Your task to perform on an android device: stop showing notifications on the lock screen Image 0: 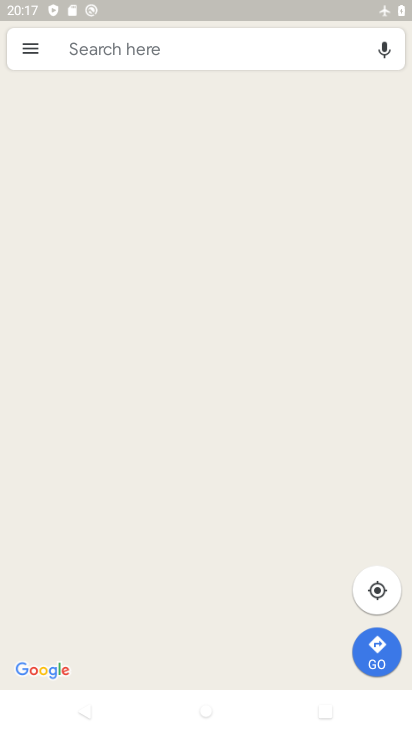
Step 0: press home button
Your task to perform on an android device: stop showing notifications on the lock screen Image 1: 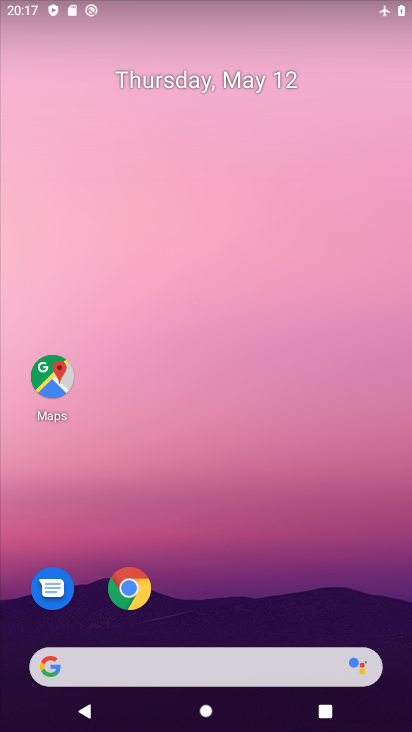
Step 1: drag from (247, 652) to (310, 96)
Your task to perform on an android device: stop showing notifications on the lock screen Image 2: 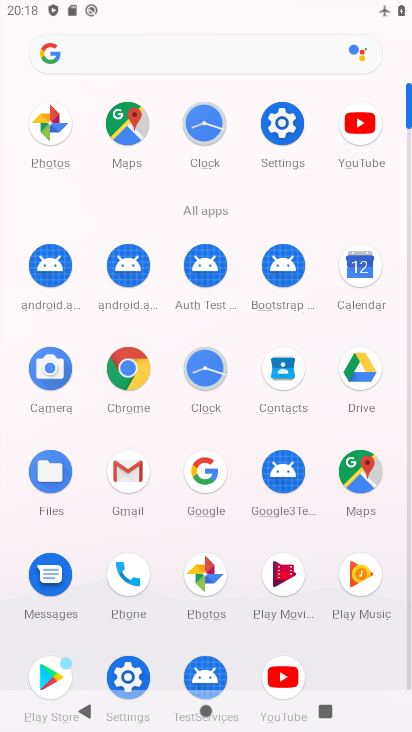
Step 2: click (127, 681)
Your task to perform on an android device: stop showing notifications on the lock screen Image 3: 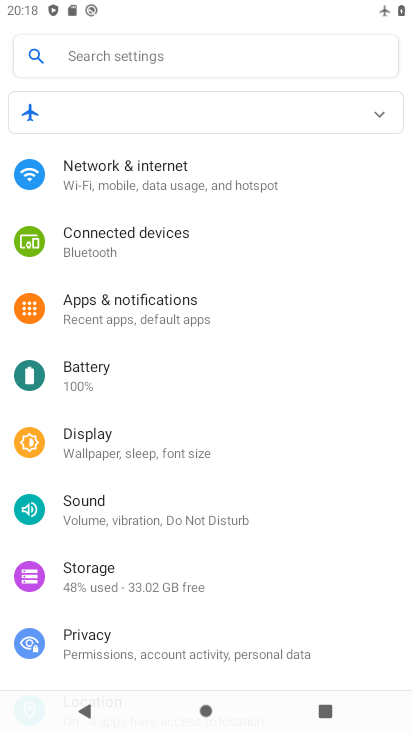
Step 3: click (153, 319)
Your task to perform on an android device: stop showing notifications on the lock screen Image 4: 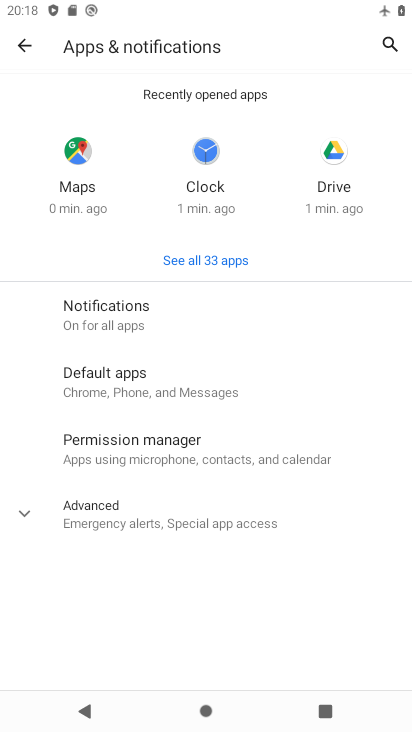
Step 4: click (180, 330)
Your task to perform on an android device: stop showing notifications on the lock screen Image 5: 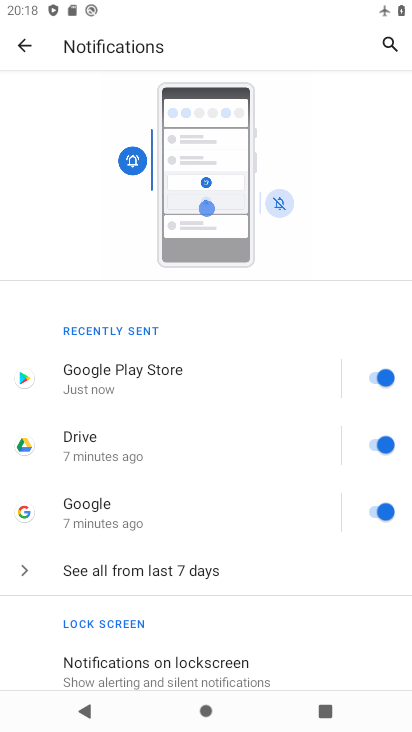
Step 5: drag from (239, 610) to (260, 326)
Your task to perform on an android device: stop showing notifications on the lock screen Image 6: 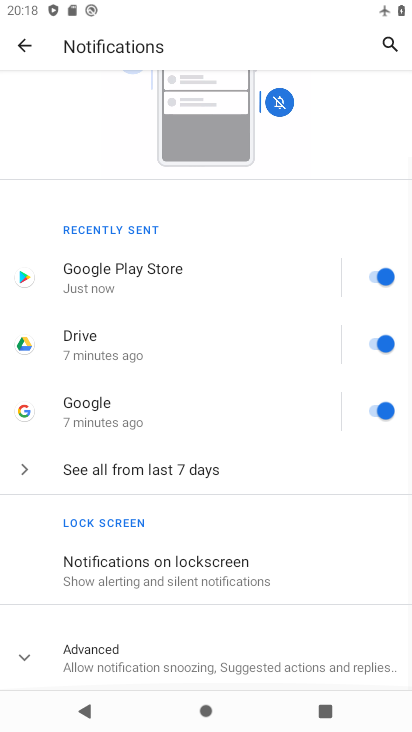
Step 6: click (247, 560)
Your task to perform on an android device: stop showing notifications on the lock screen Image 7: 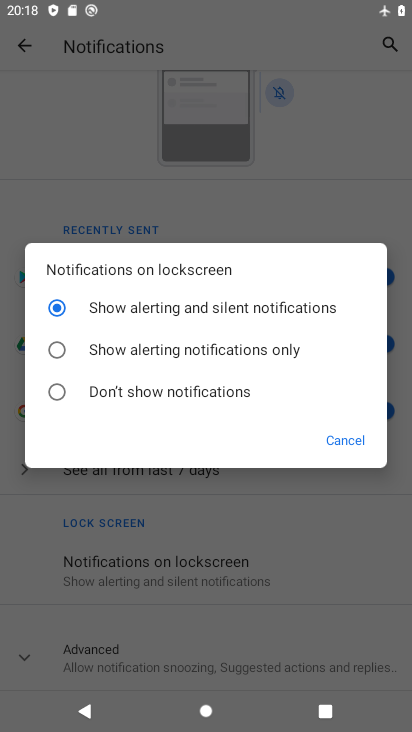
Step 7: click (219, 406)
Your task to perform on an android device: stop showing notifications on the lock screen Image 8: 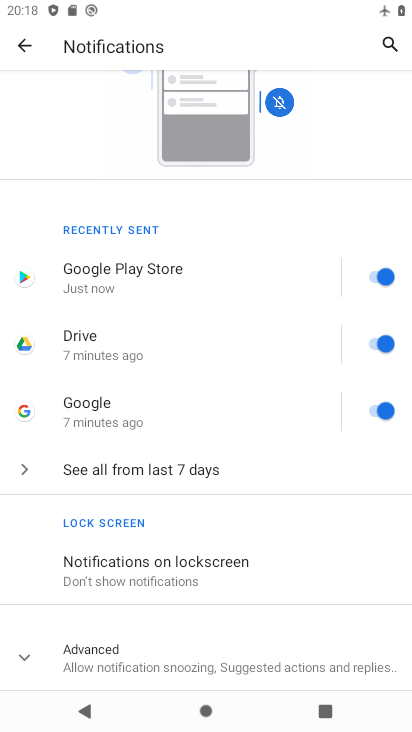
Step 8: task complete